Your task to perform on an android device: turn on improve location accuracy Image 0: 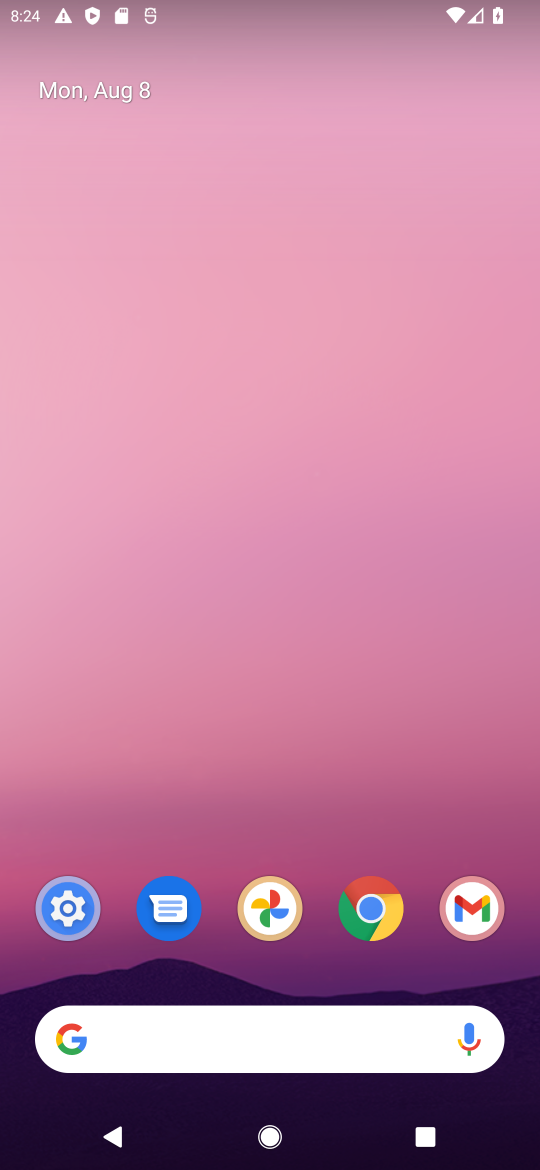
Step 0: click (82, 911)
Your task to perform on an android device: turn on improve location accuracy Image 1: 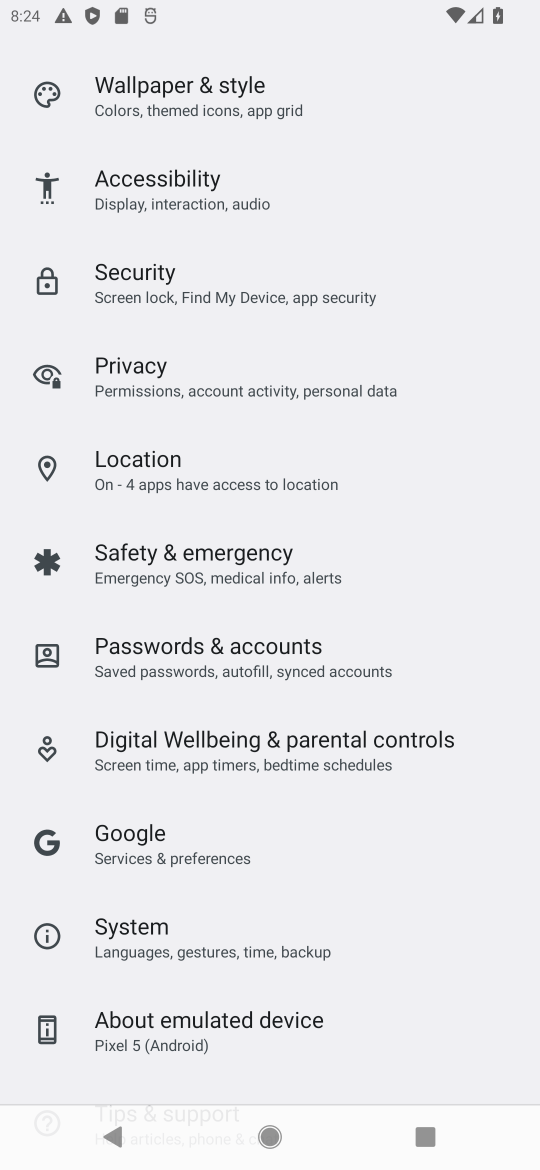
Step 1: click (228, 450)
Your task to perform on an android device: turn on improve location accuracy Image 2: 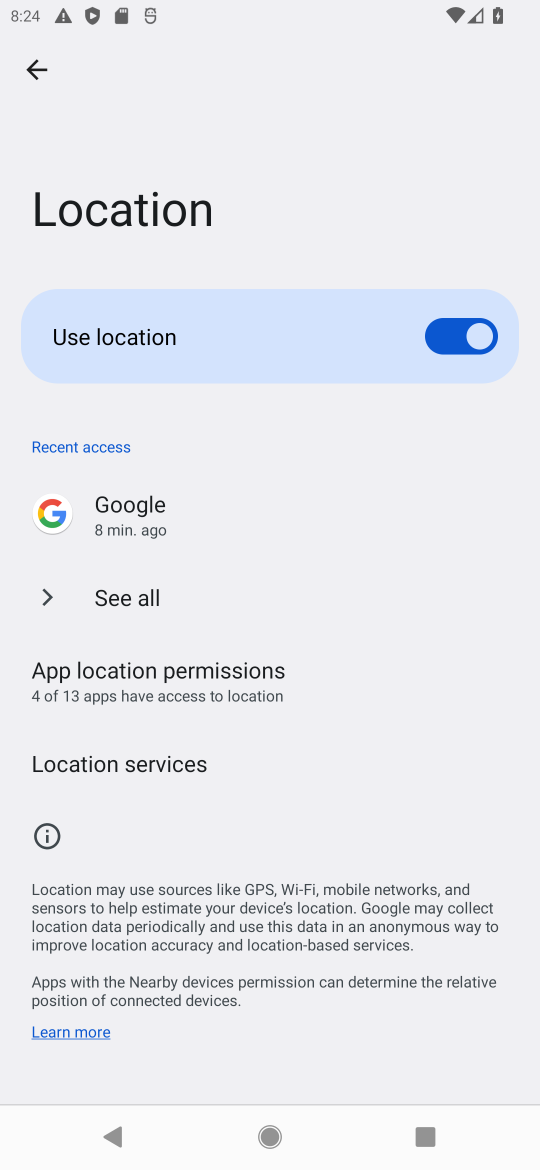
Step 2: click (196, 773)
Your task to perform on an android device: turn on improve location accuracy Image 3: 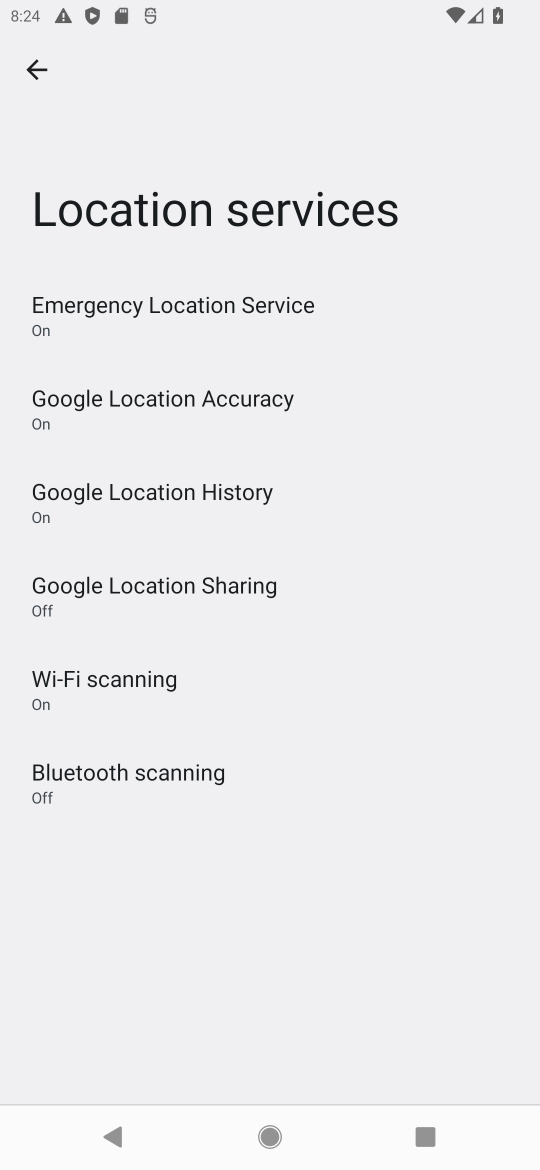
Step 3: click (301, 406)
Your task to perform on an android device: turn on improve location accuracy Image 4: 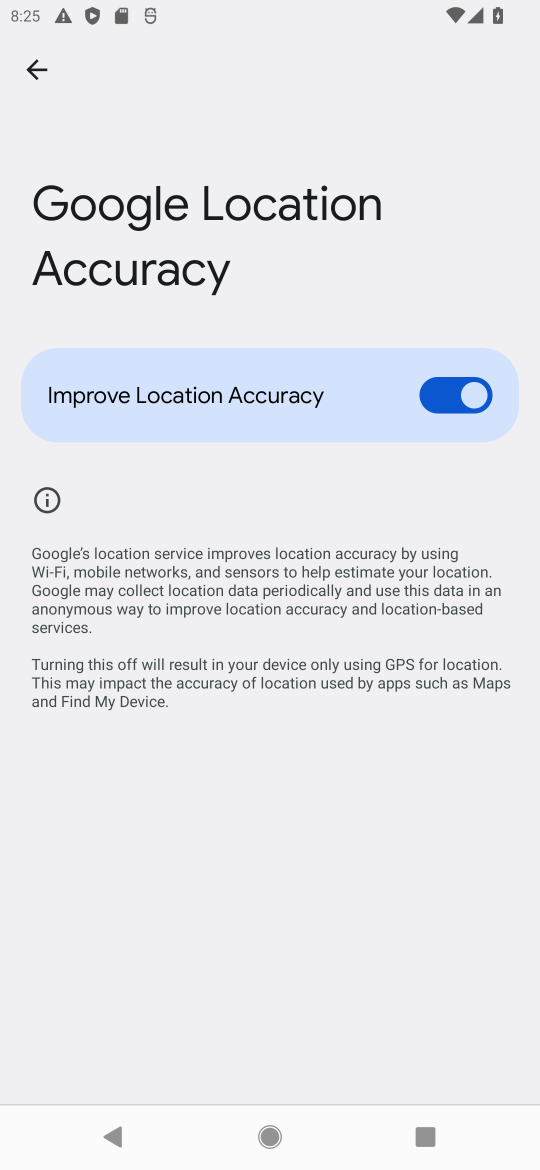
Step 4: task complete